Your task to perform on an android device: turn off location history Image 0: 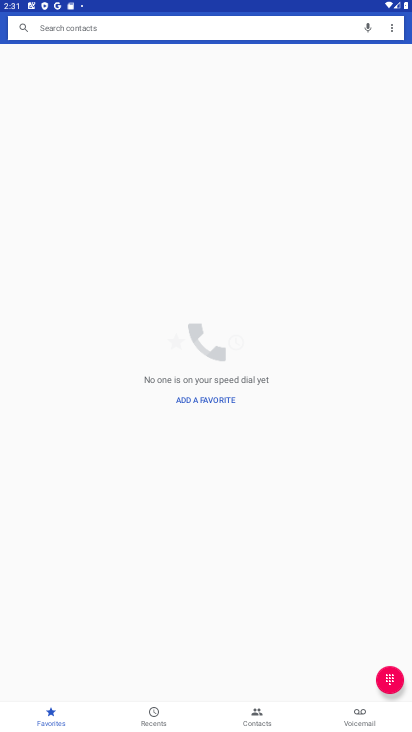
Step 0: press home button
Your task to perform on an android device: turn off location history Image 1: 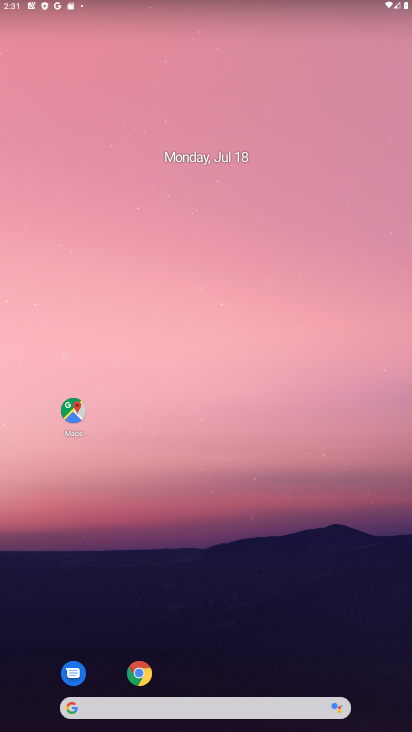
Step 1: drag from (213, 707) to (215, 123)
Your task to perform on an android device: turn off location history Image 2: 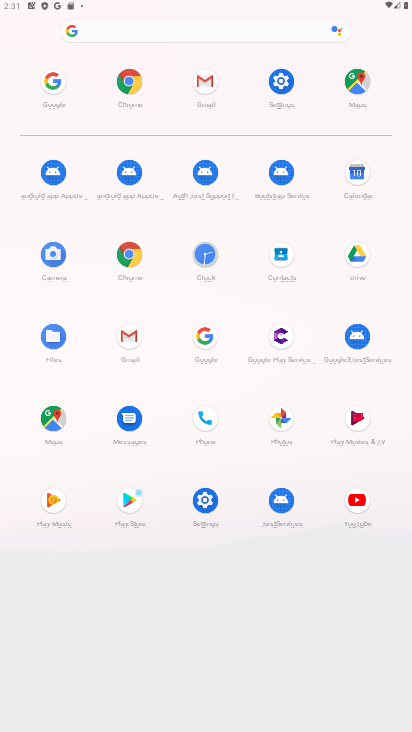
Step 2: click (283, 82)
Your task to perform on an android device: turn off location history Image 3: 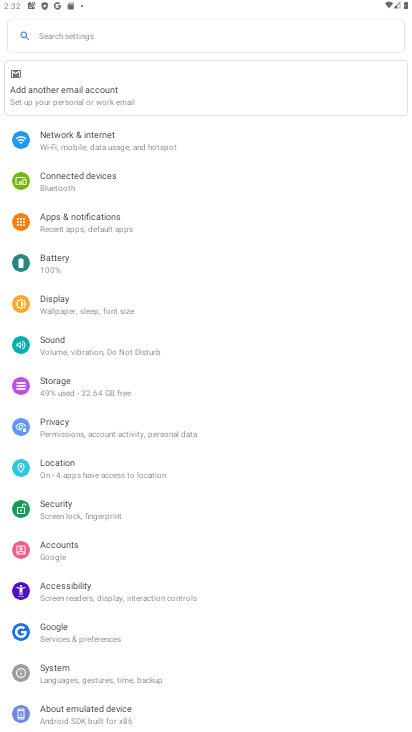
Step 3: click (98, 474)
Your task to perform on an android device: turn off location history Image 4: 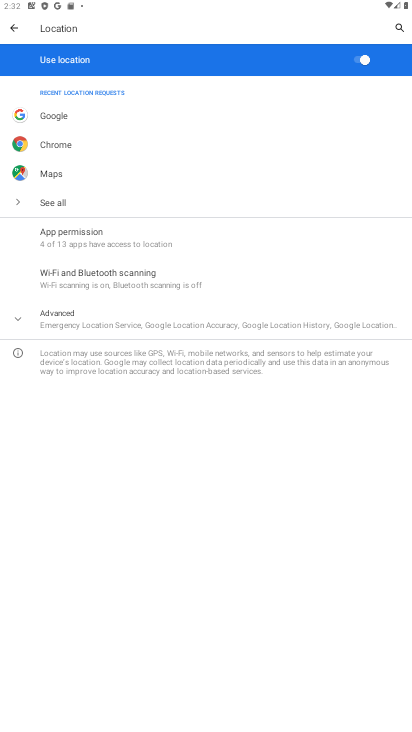
Step 4: click (102, 326)
Your task to perform on an android device: turn off location history Image 5: 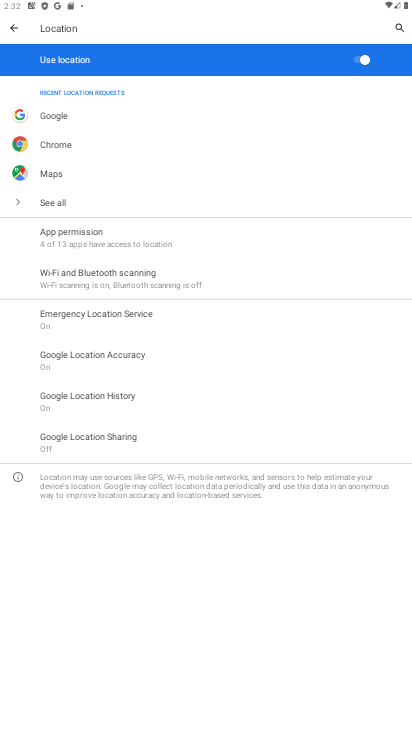
Step 5: click (105, 394)
Your task to perform on an android device: turn off location history Image 6: 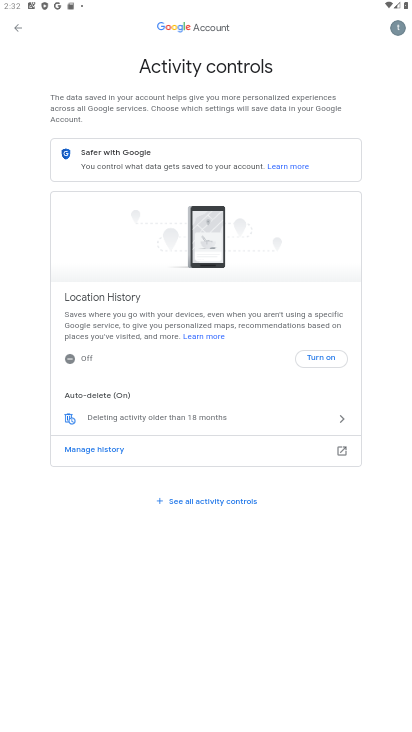
Step 6: task complete